Your task to perform on an android device: Open internet settings Image 0: 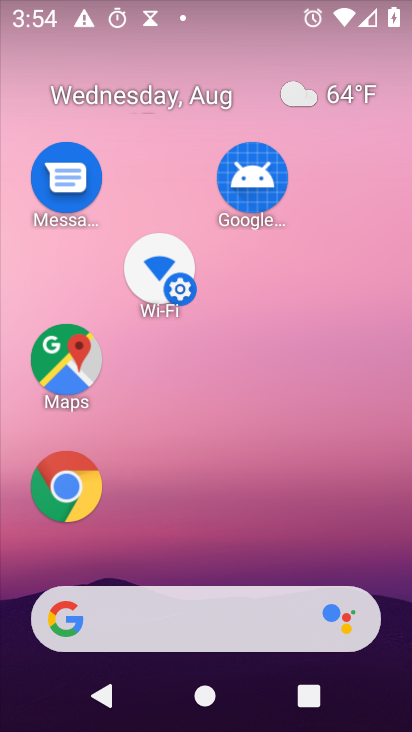
Step 0: press home button
Your task to perform on an android device: Open internet settings Image 1: 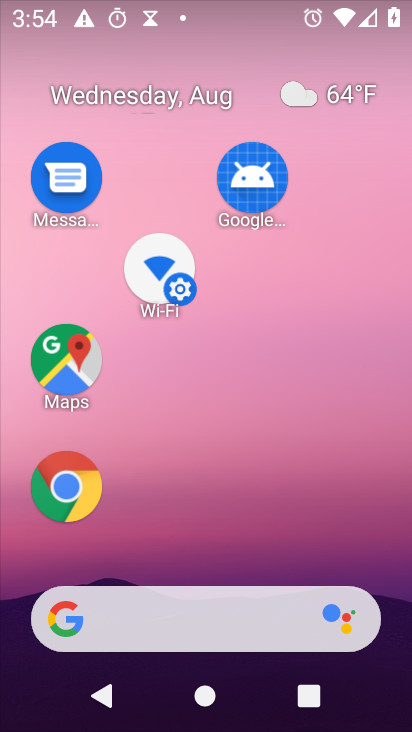
Step 1: drag from (278, 550) to (329, 14)
Your task to perform on an android device: Open internet settings Image 2: 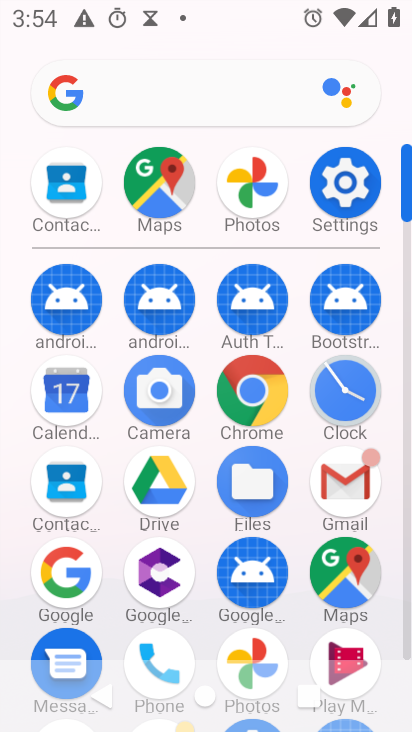
Step 2: click (339, 168)
Your task to perform on an android device: Open internet settings Image 3: 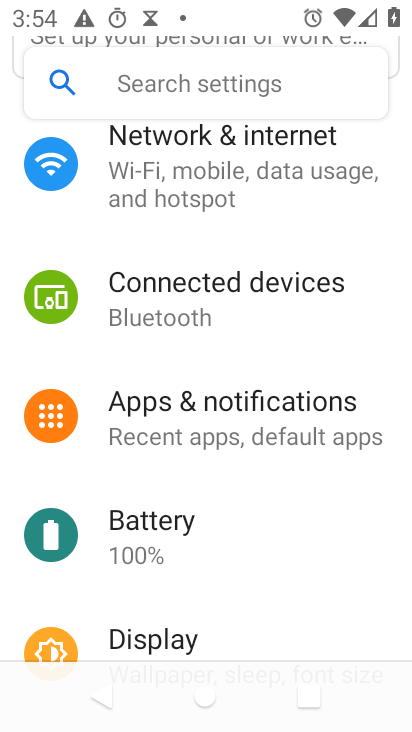
Step 3: click (214, 167)
Your task to perform on an android device: Open internet settings Image 4: 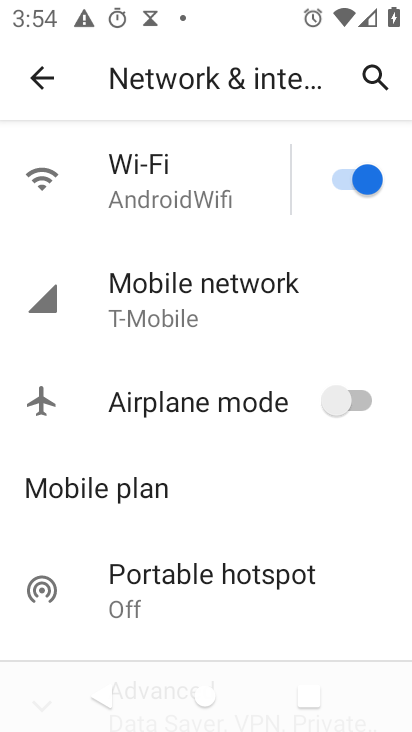
Step 4: click (147, 172)
Your task to perform on an android device: Open internet settings Image 5: 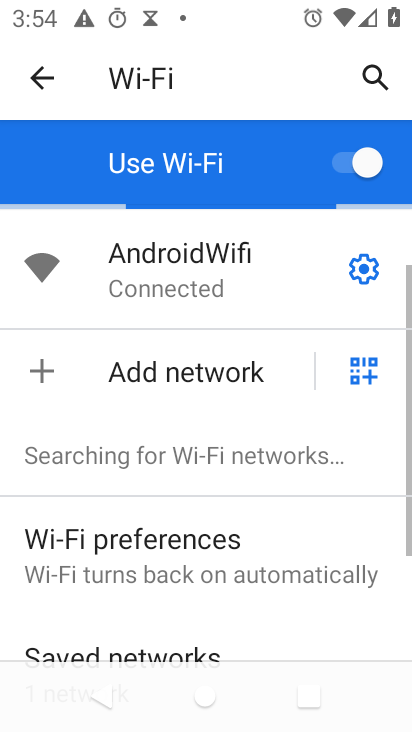
Step 5: click (177, 275)
Your task to perform on an android device: Open internet settings Image 6: 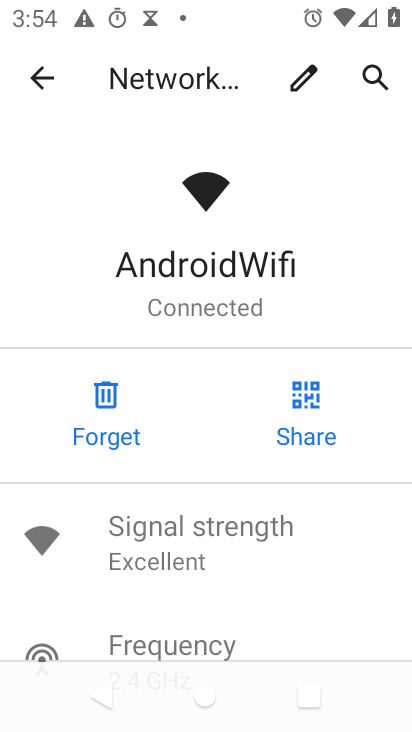
Step 6: task complete